Your task to perform on an android device: Open Yahoo.com Image 0: 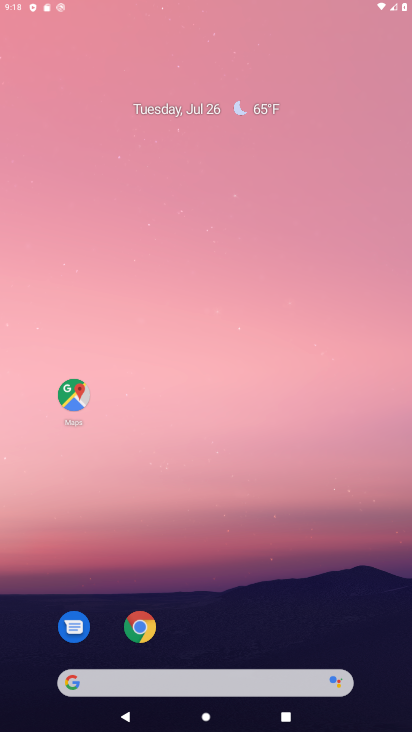
Step 0: drag from (193, 429) to (174, 159)
Your task to perform on an android device: Open Yahoo.com Image 1: 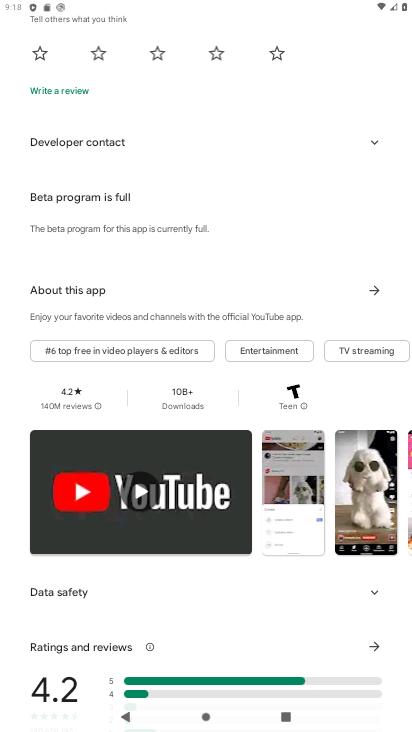
Step 1: press home button
Your task to perform on an android device: Open Yahoo.com Image 2: 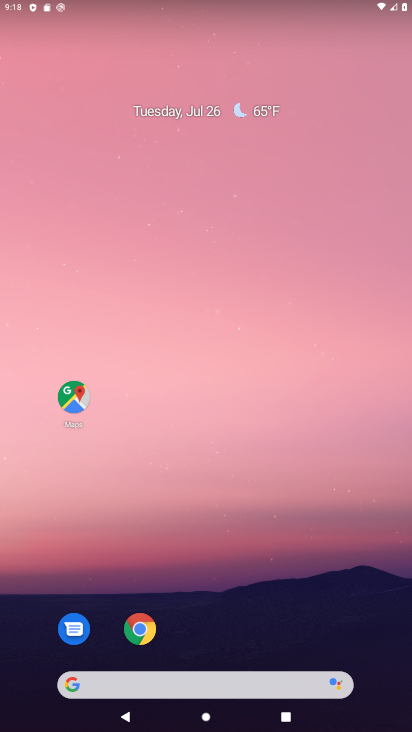
Step 2: drag from (271, 551) to (235, 131)
Your task to perform on an android device: Open Yahoo.com Image 3: 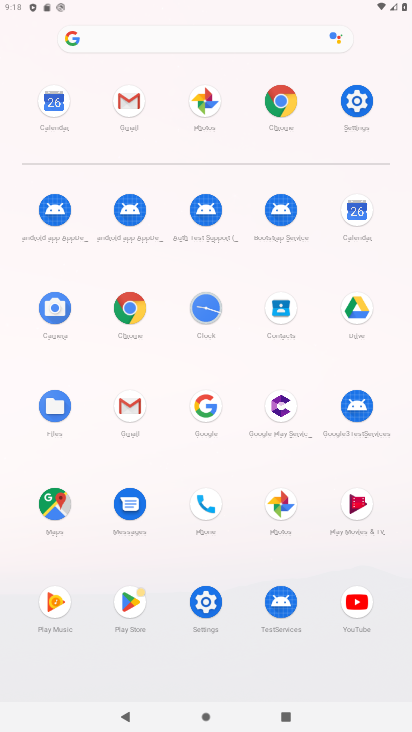
Step 3: click (285, 103)
Your task to perform on an android device: Open Yahoo.com Image 4: 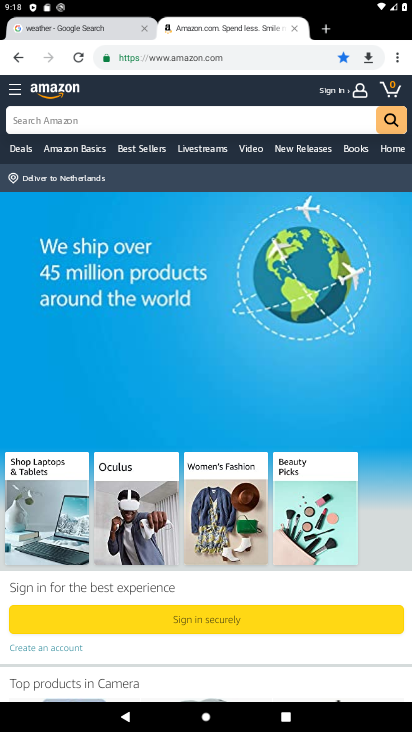
Step 4: click (237, 68)
Your task to perform on an android device: Open Yahoo.com Image 5: 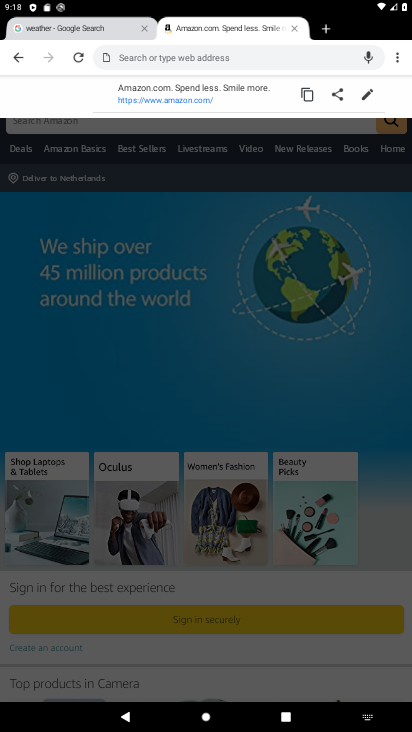
Step 5: type "yahoo.com"
Your task to perform on an android device: Open Yahoo.com Image 6: 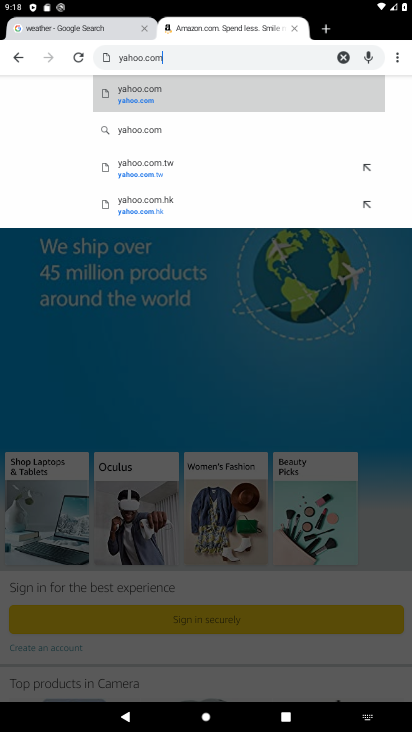
Step 6: click (176, 99)
Your task to perform on an android device: Open Yahoo.com Image 7: 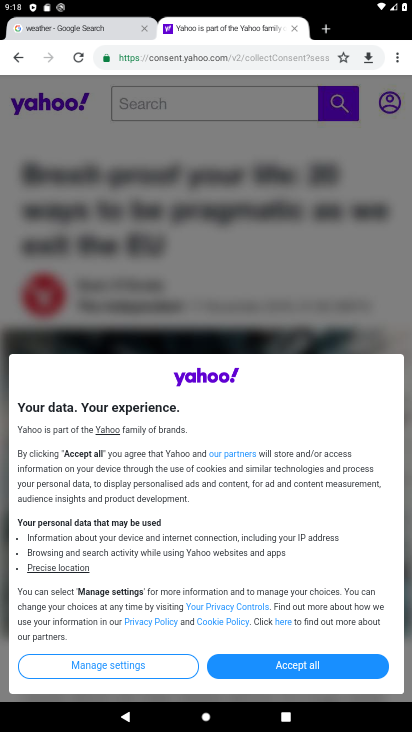
Step 7: task complete